Your task to perform on an android device: turn off picture-in-picture Image 0: 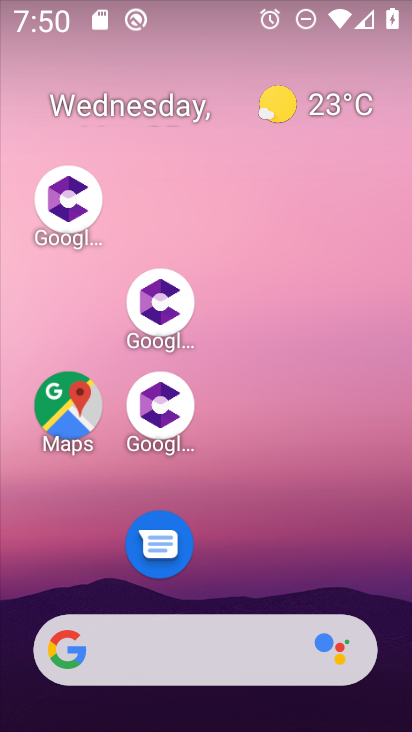
Step 0: drag from (283, 523) to (153, 86)
Your task to perform on an android device: turn off picture-in-picture Image 1: 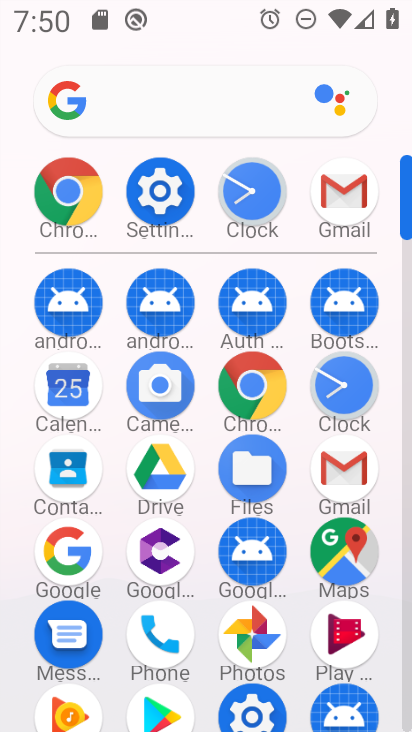
Step 1: click (160, 191)
Your task to perform on an android device: turn off picture-in-picture Image 2: 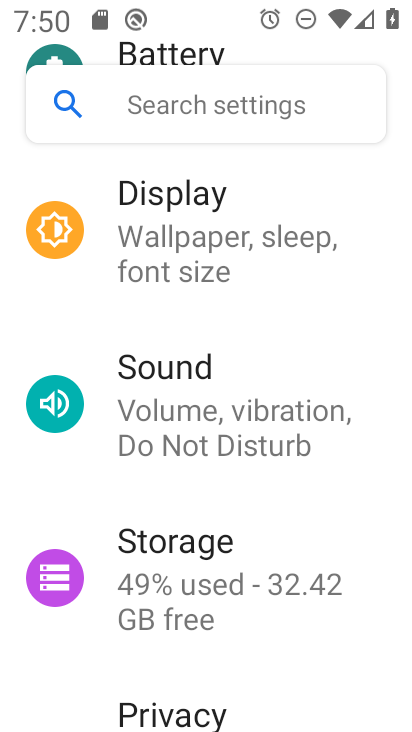
Step 2: drag from (265, 502) to (254, 277)
Your task to perform on an android device: turn off picture-in-picture Image 3: 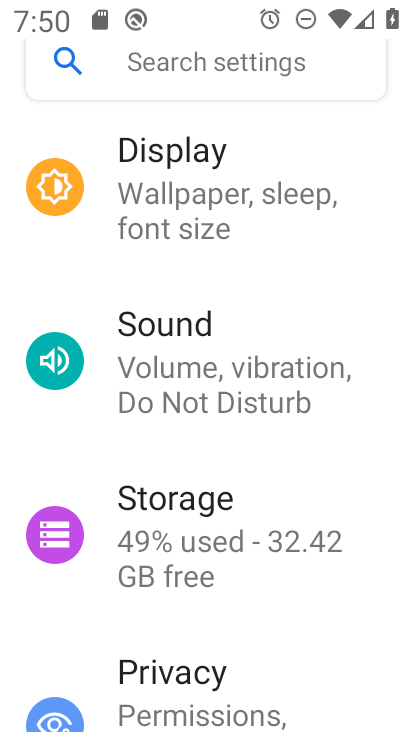
Step 3: drag from (246, 227) to (218, 723)
Your task to perform on an android device: turn off picture-in-picture Image 4: 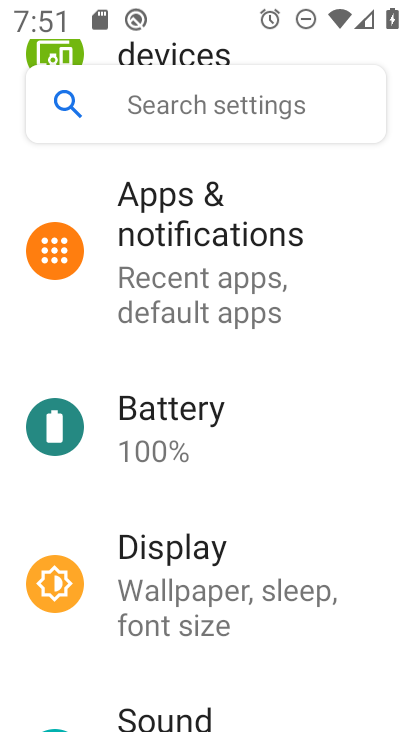
Step 4: click (199, 231)
Your task to perform on an android device: turn off picture-in-picture Image 5: 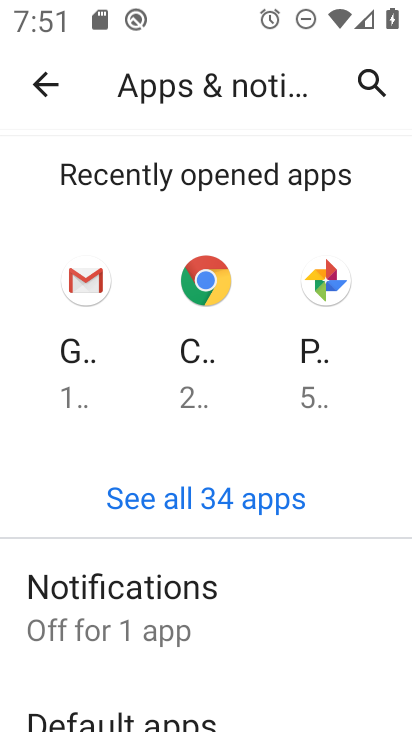
Step 5: drag from (288, 578) to (272, 260)
Your task to perform on an android device: turn off picture-in-picture Image 6: 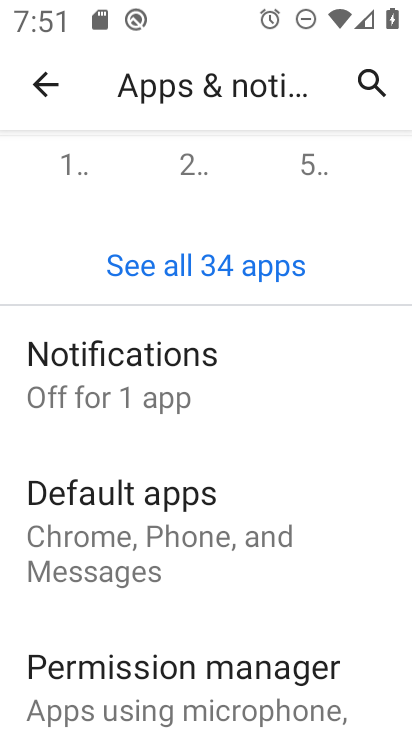
Step 6: drag from (246, 598) to (169, 232)
Your task to perform on an android device: turn off picture-in-picture Image 7: 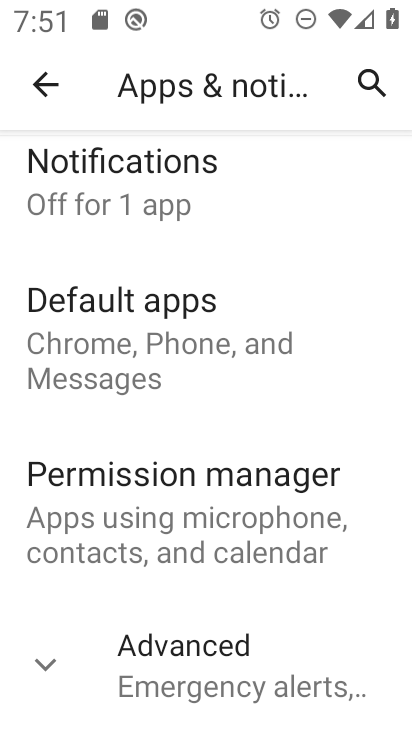
Step 7: click (44, 659)
Your task to perform on an android device: turn off picture-in-picture Image 8: 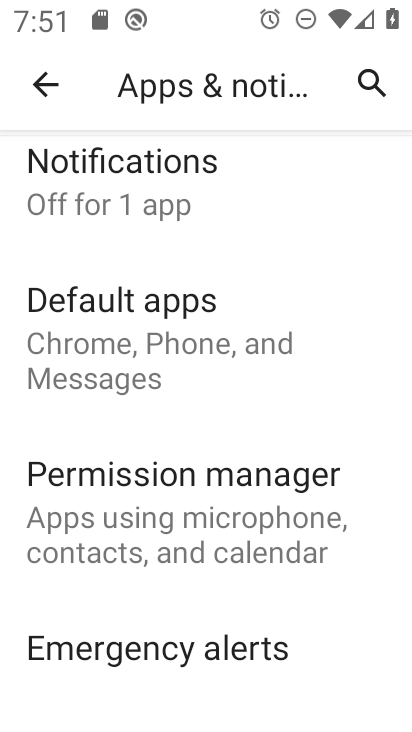
Step 8: drag from (269, 653) to (229, 236)
Your task to perform on an android device: turn off picture-in-picture Image 9: 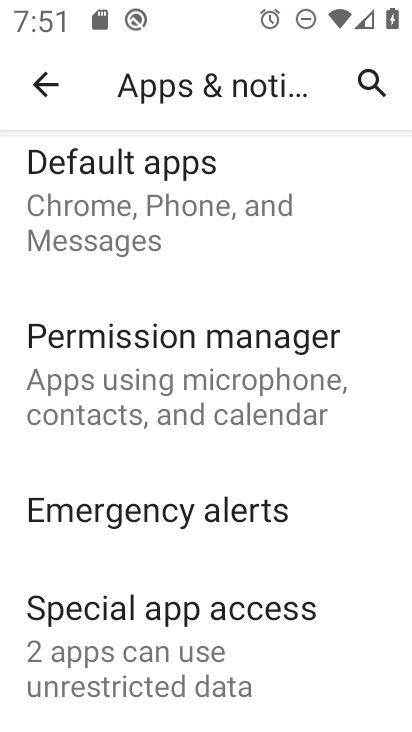
Step 9: click (160, 628)
Your task to perform on an android device: turn off picture-in-picture Image 10: 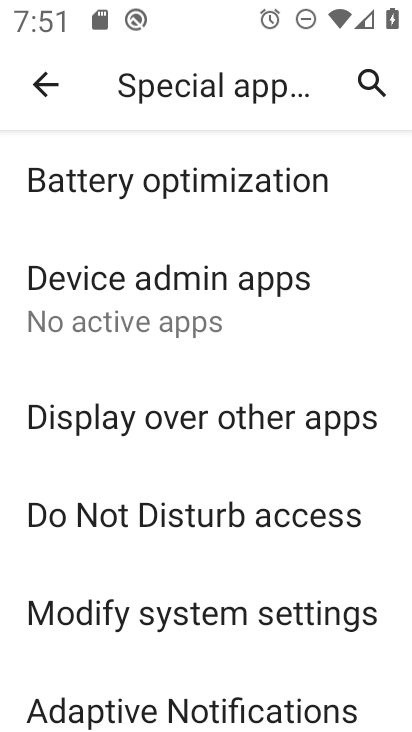
Step 10: drag from (217, 580) to (182, 397)
Your task to perform on an android device: turn off picture-in-picture Image 11: 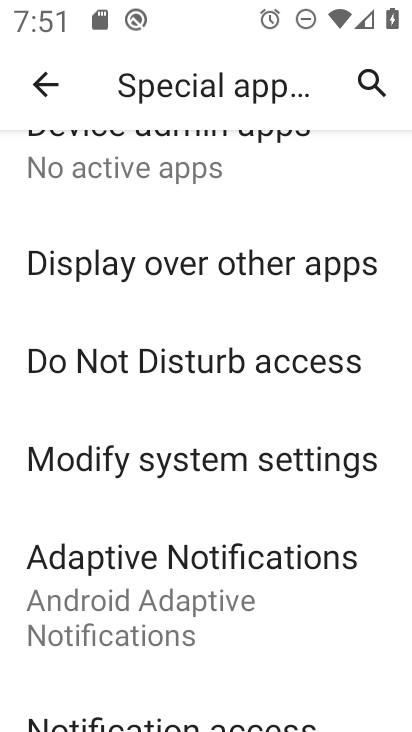
Step 11: drag from (301, 578) to (270, 209)
Your task to perform on an android device: turn off picture-in-picture Image 12: 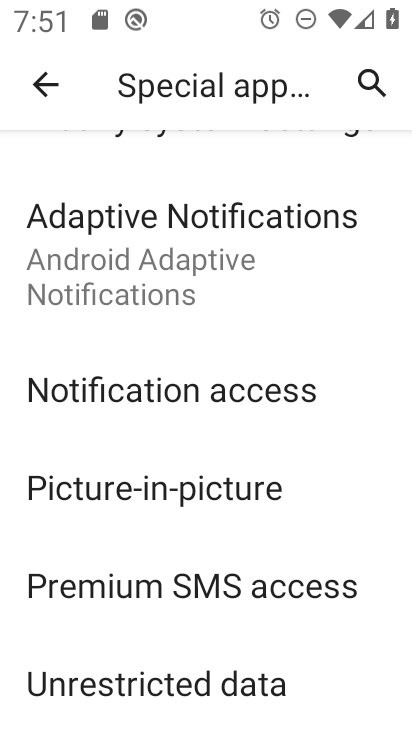
Step 12: click (198, 475)
Your task to perform on an android device: turn off picture-in-picture Image 13: 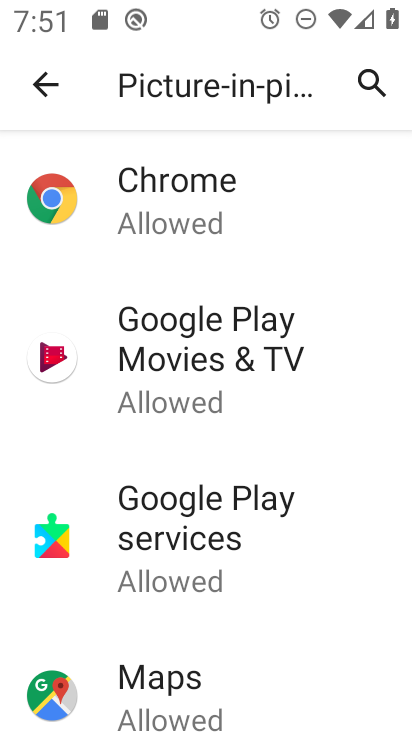
Step 13: click (177, 212)
Your task to perform on an android device: turn off picture-in-picture Image 14: 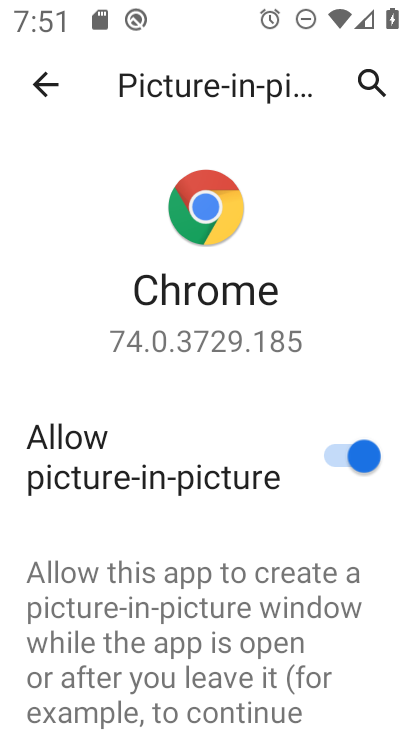
Step 14: click (375, 456)
Your task to perform on an android device: turn off picture-in-picture Image 15: 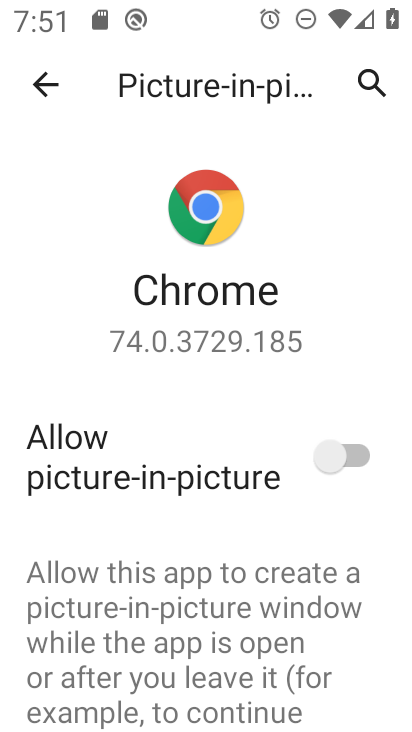
Step 15: click (50, 92)
Your task to perform on an android device: turn off picture-in-picture Image 16: 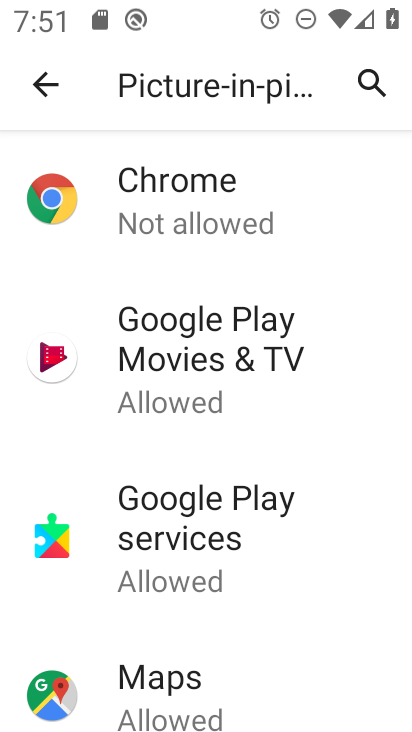
Step 16: click (170, 381)
Your task to perform on an android device: turn off picture-in-picture Image 17: 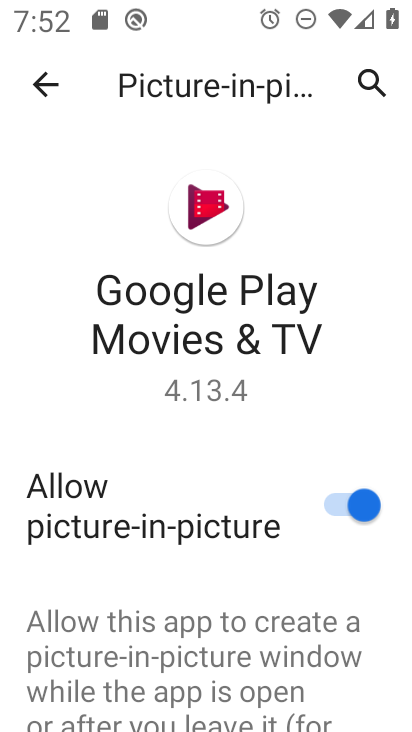
Step 17: click (345, 511)
Your task to perform on an android device: turn off picture-in-picture Image 18: 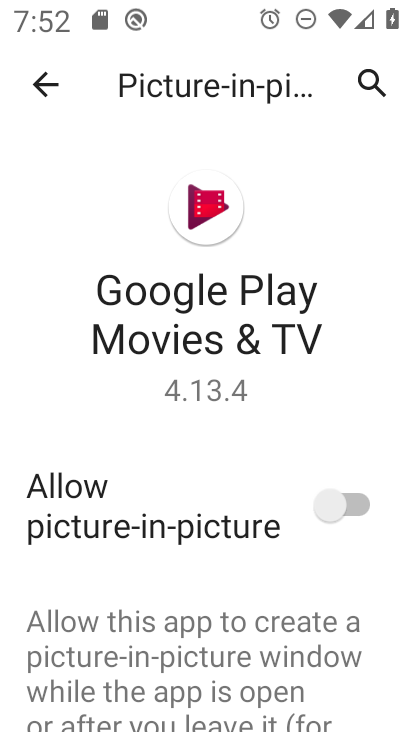
Step 18: click (46, 78)
Your task to perform on an android device: turn off picture-in-picture Image 19: 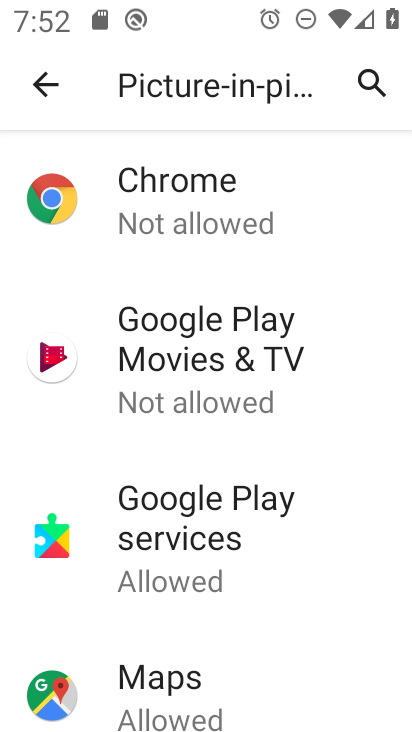
Step 19: click (171, 541)
Your task to perform on an android device: turn off picture-in-picture Image 20: 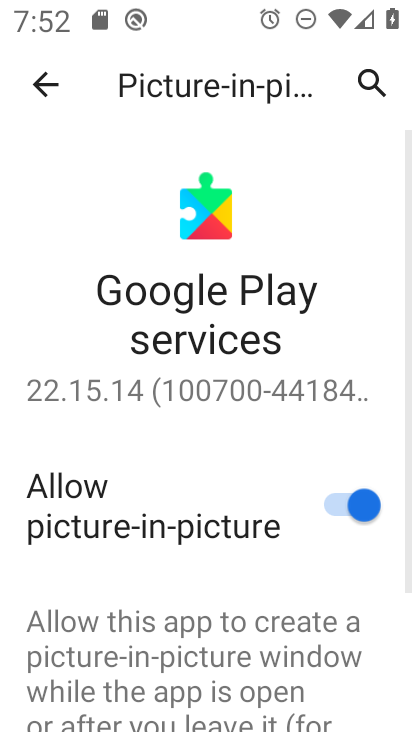
Step 20: click (360, 497)
Your task to perform on an android device: turn off picture-in-picture Image 21: 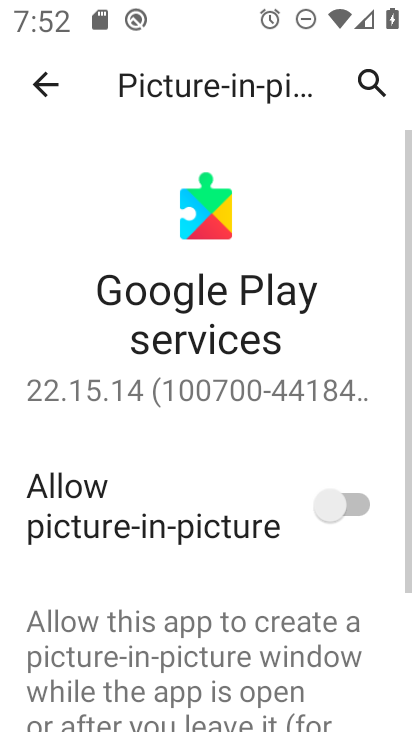
Step 21: click (45, 91)
Your task to perform on an android device: turn off picture-in-picture Image 22: 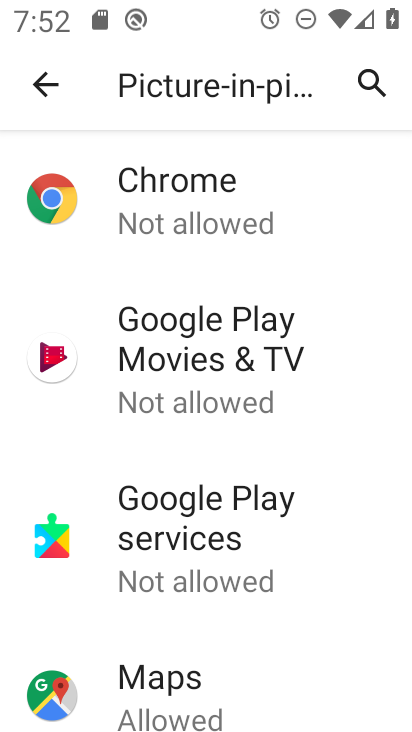
Step 22: drag from (293, 645) to (290, 105)
Your task to perform on an android device: turn off picture-in-picture Image 23: 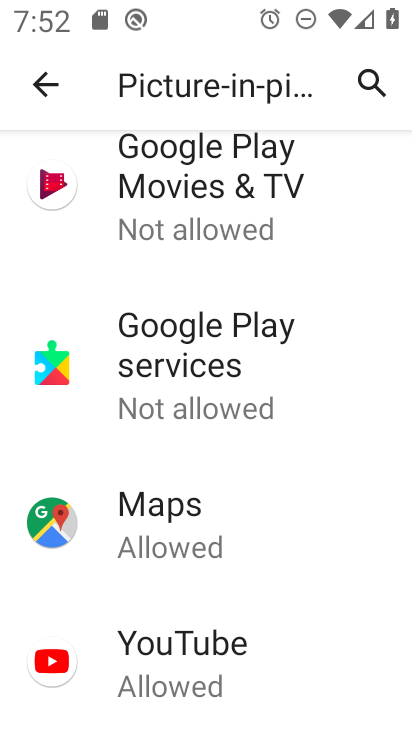
Step 23: click (145, 519)
Your task to perform on an android device: turn off picture-in-picture Image 24: 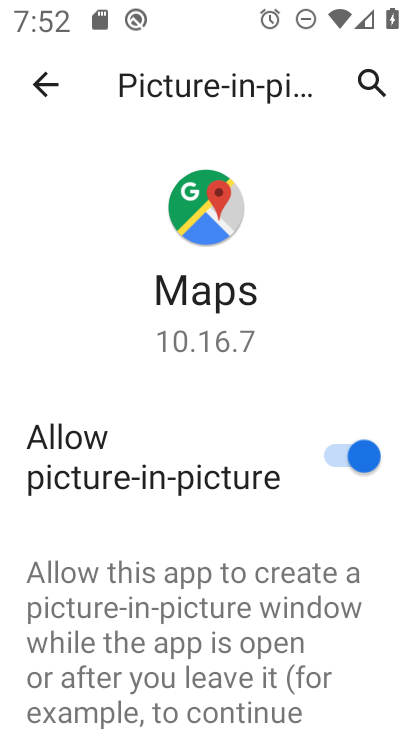
Step 24: click (359, 458)
Your task to perform on an android device: turn off picture-in-picture Image 25: 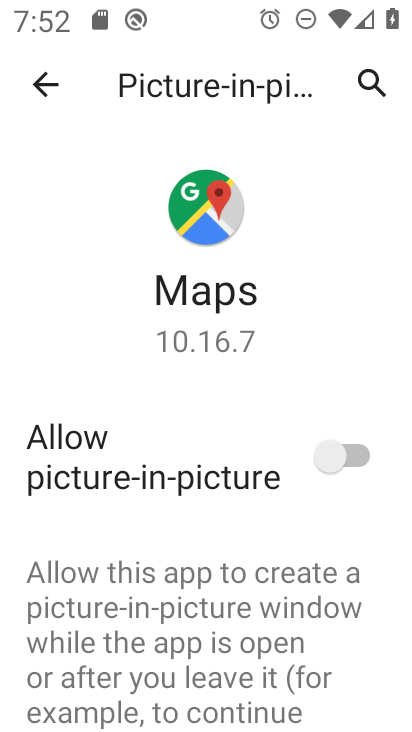
Step 25: click (45, 82)
Your task to perform on an android device: turn off picture-in-picture Image 26: 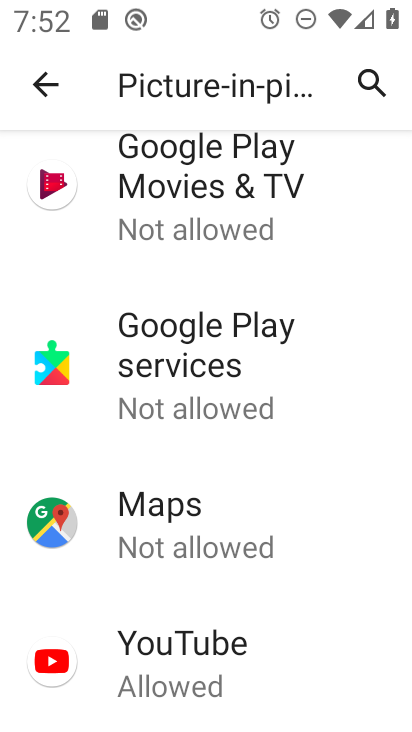
Step 26: drag from (279, 606) to (195, 296)
Your task to perform on an android device: turn off picture-in-picture Image 27: 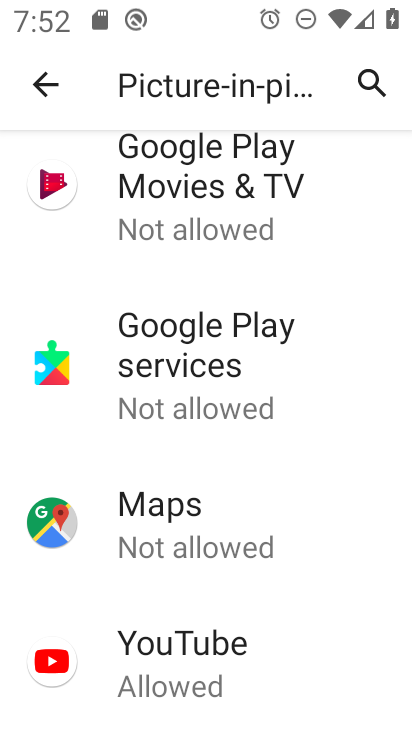
Step 27: click (177, 648)
Your task to perform on an android device: turn off picture-in-picture Image 28: 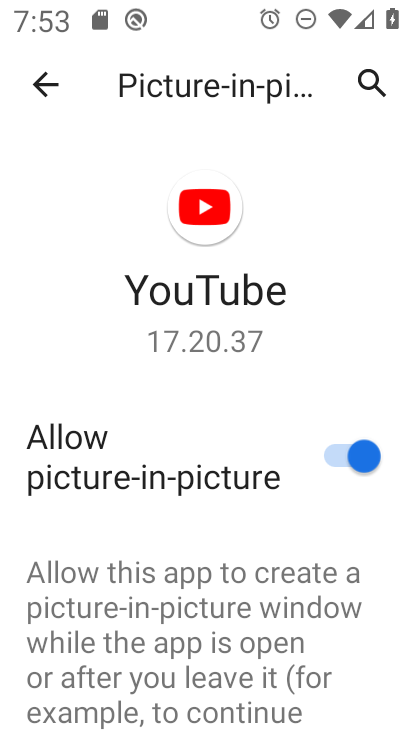
Step 28: click (359, 447)
Your task to perform on an android device: turn off picture-in-picture Image 29: 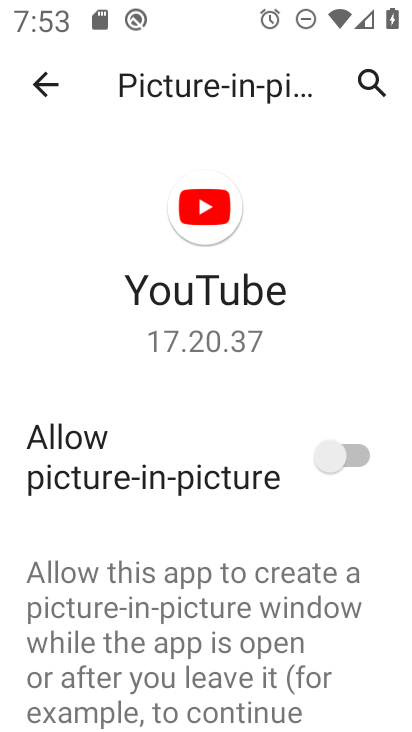
Step 29: click (50, 77)
Your task to perform on an android device: turn off picture-in-picture Image 30: 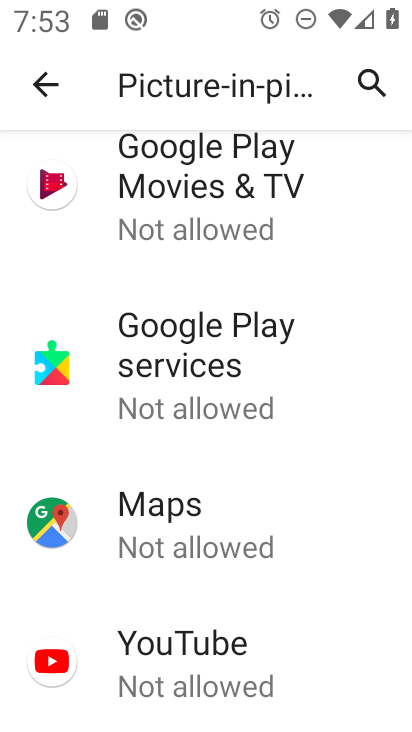
Step 30: task complete